Your task to perform on an android device: Do I have any events tomorrow? Image 0: 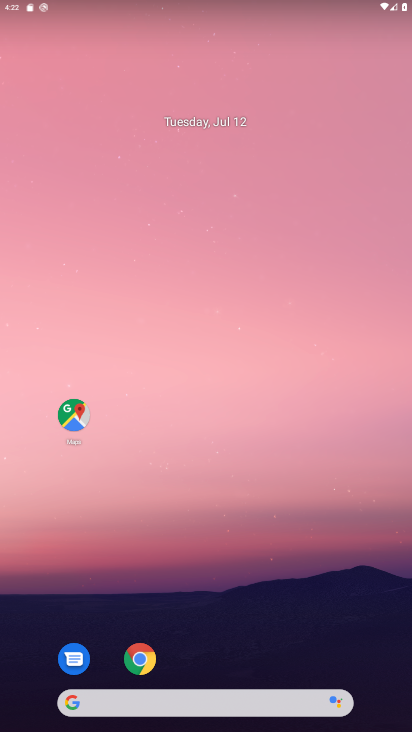
Step 0: drag from (115, 697) to (251, 55)
Your task to perform on an android device: Do I have any events tomorrow? Image 1: 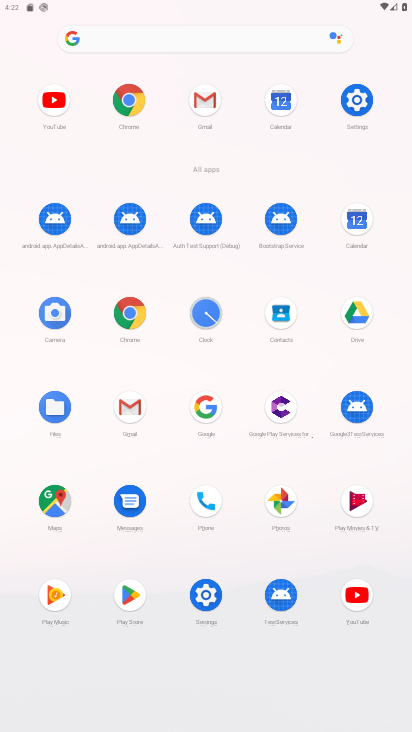
Step 1: click (358, 221)
Your task to perform on an android device: Do I have any events tomorrow? Image 2: 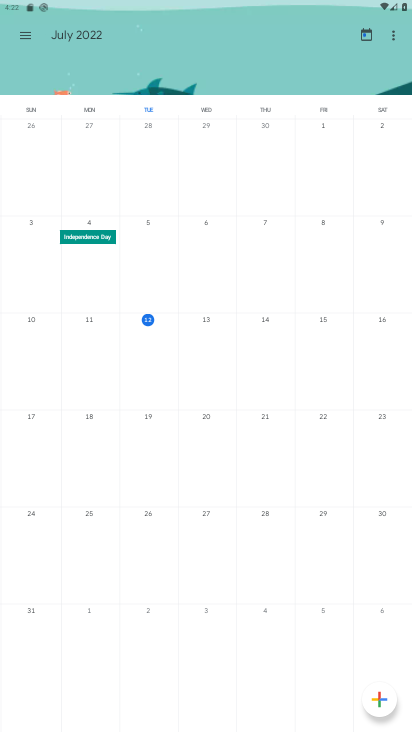
Step 2: task complete